Your task to perform on an android device: turn on the 24-hour format for clock Image 0: 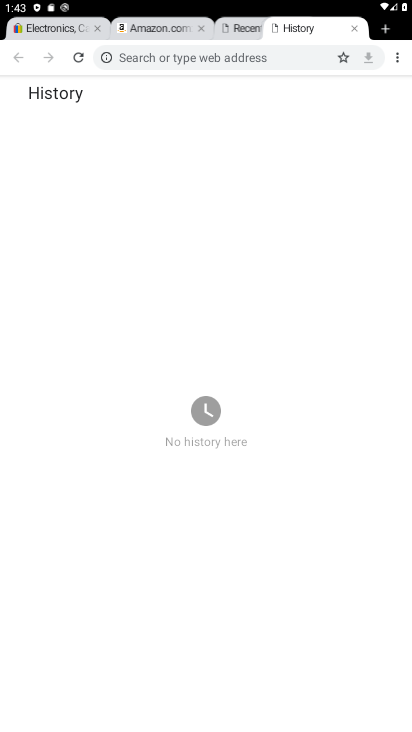
Step 0: press home button
Your task to perform on an android device: turn on the 24-hour format for clock Image 1: 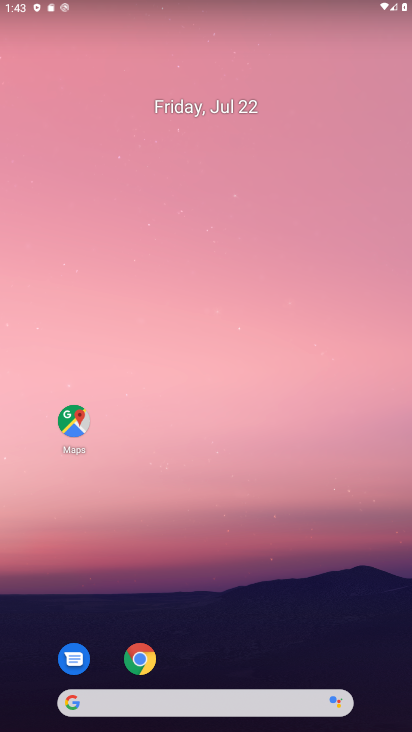
Step 1: click (132, 662)
Your task to perform on an android device: turn on the 24-hour format for clock Image 2: 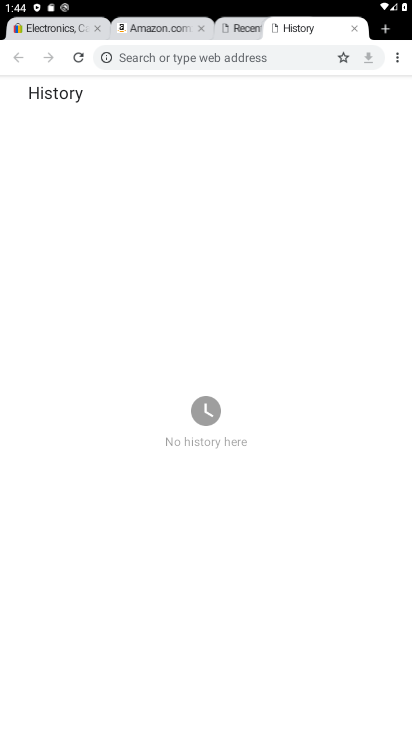
Step 2: task complete